Your task to perform on an android device: Show me the alarms in the clock app Image 0: 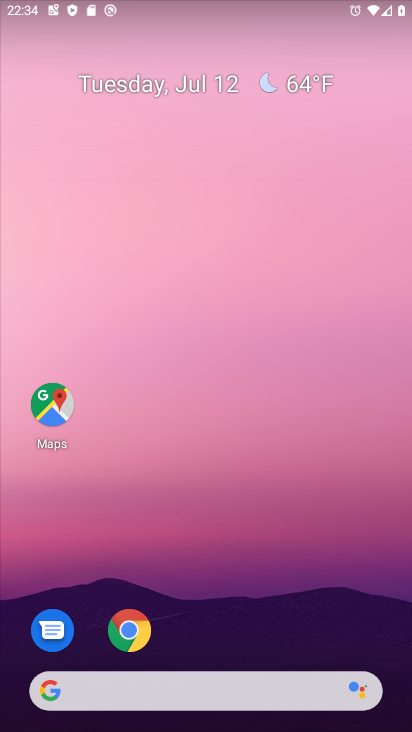
Step 0: drag from (192, 577) to (171, 41)
Your task to perform on an android device: Show me the alarms in the clock app Image 1: 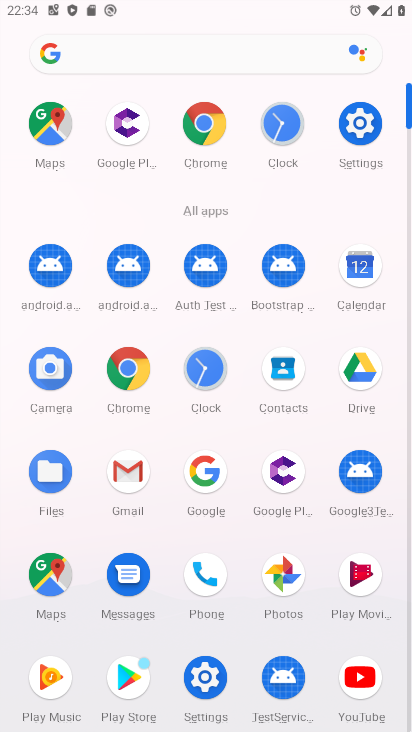
Step 1: click (212, 371)
Your task to perform on an android device: Show me the alarms in the clock app Image 2: 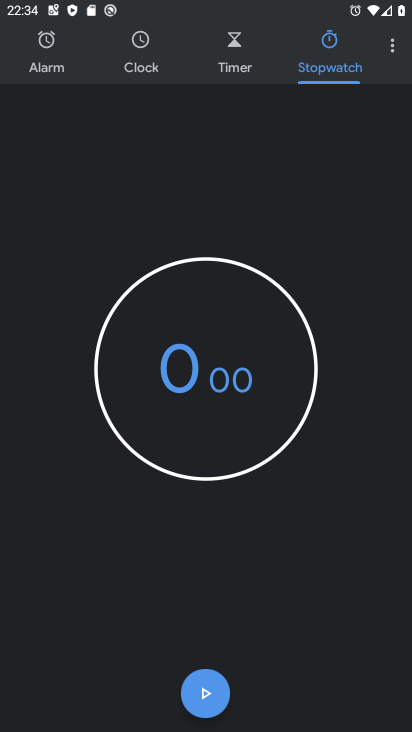
Step 2: click (62, 55)
Your task to perform on an android device: Show me the alarms in the clock app Image 3: 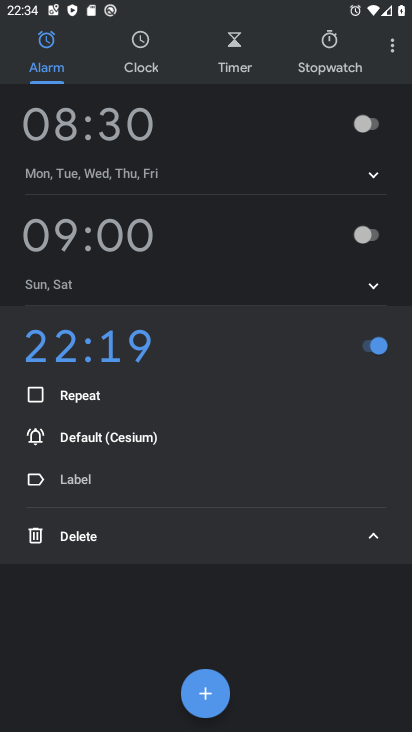
Step 3: task complete